Your task to perform on an android device: Go to Google Image 0: 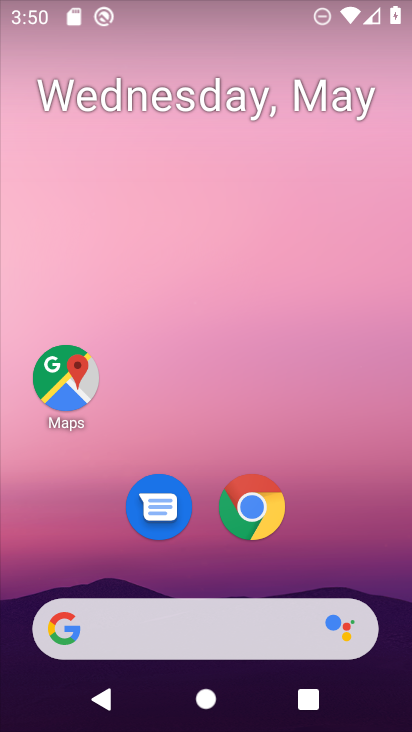
Step 0: drag from (208, 561) to (229, 118)
Your task to perform on an android device: Go to Google Image 1: 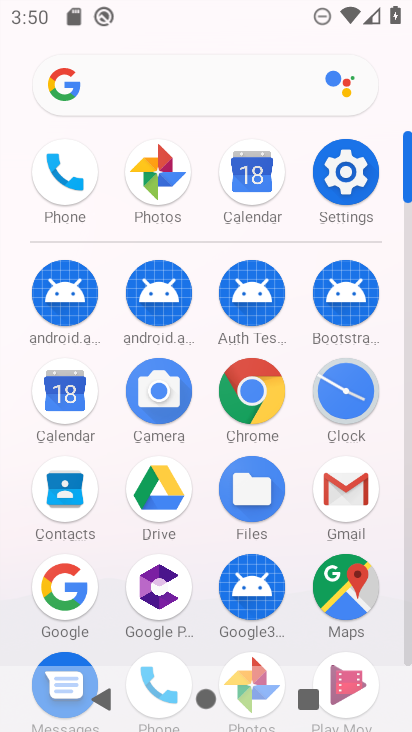
Step 1: drag from (193, 550) to (212, 266)
Your task to perform on an android device: Go to Google Image 2: 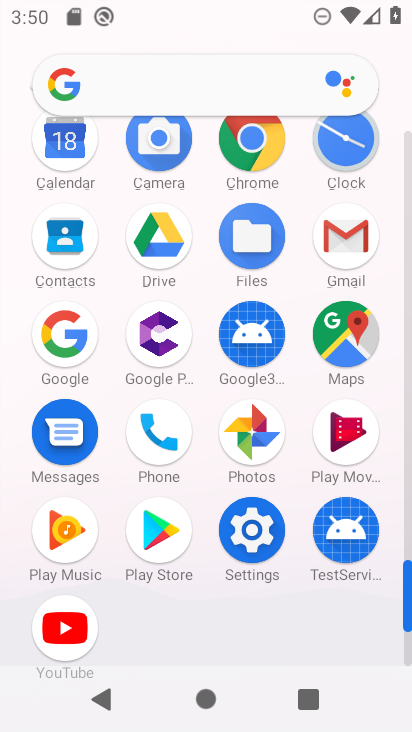
Step 2: click (74, 337)
Your task to perform on an android device: Go to Google Image 3: 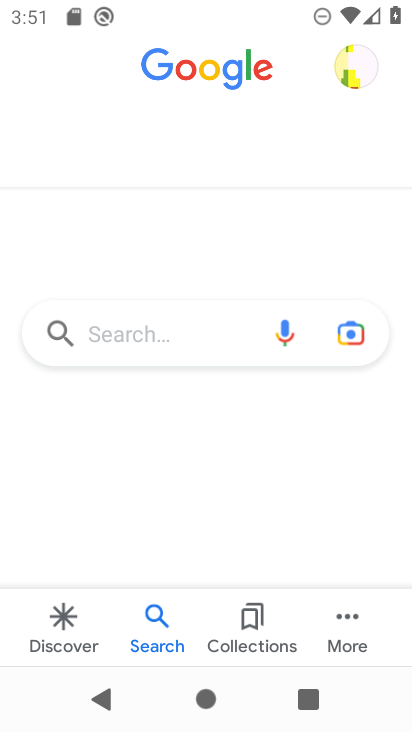
Step 3: task complete